Your task to perform on an android device: star an email in the gmail app Image 0: 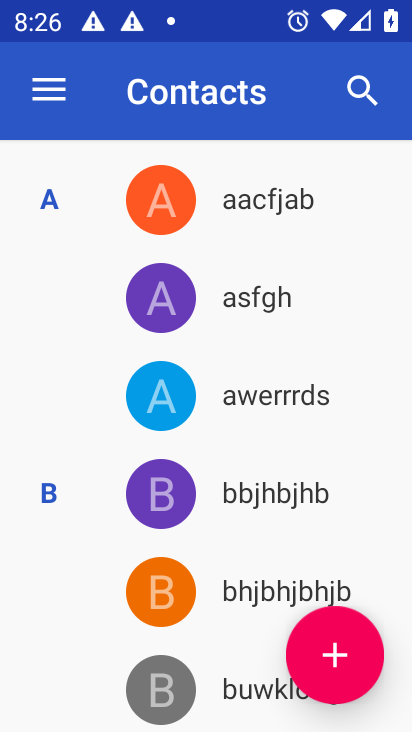
Step 0: press home button
Your task to perform on an android device: star an email in the gmail app Image 1: 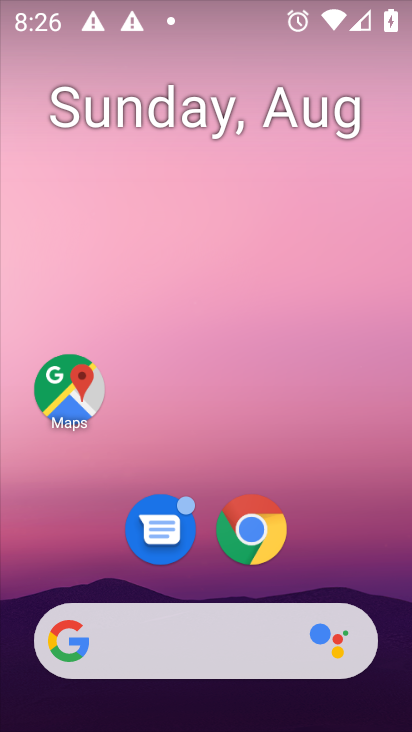
Step 1: drag from (195, 575) to (221, 126)
Your task to perform on an android device: star an email in the gmail app Image 2: 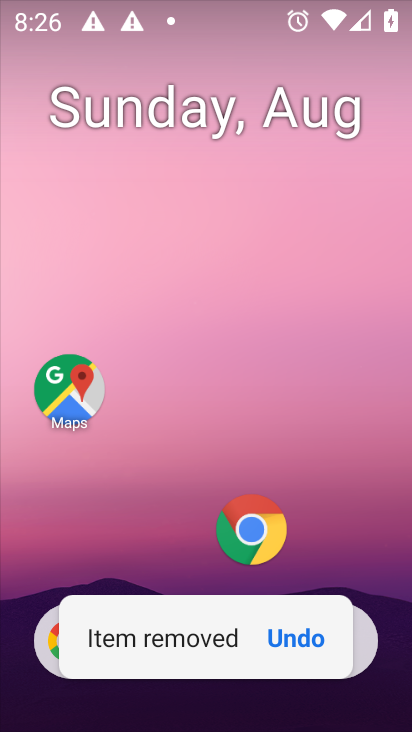
Step 2: drag from (174, 314) to (207, 88)
Your task to perform on an android device: star an email in the gmail app Image 3: 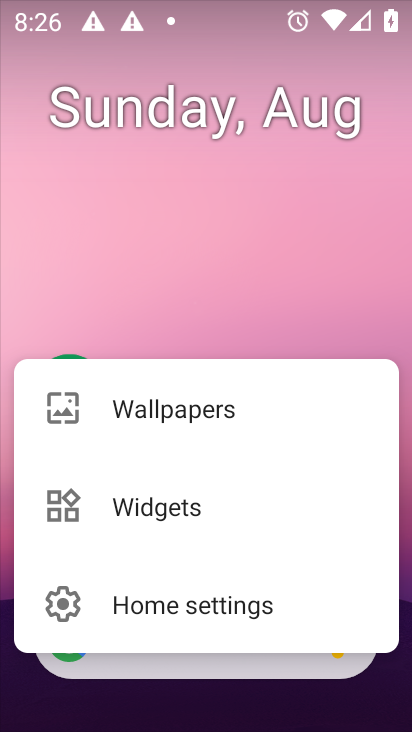
Step 3: click (241, 236)
Your task to perform on an android device: star an email in the gmail app Image 4: 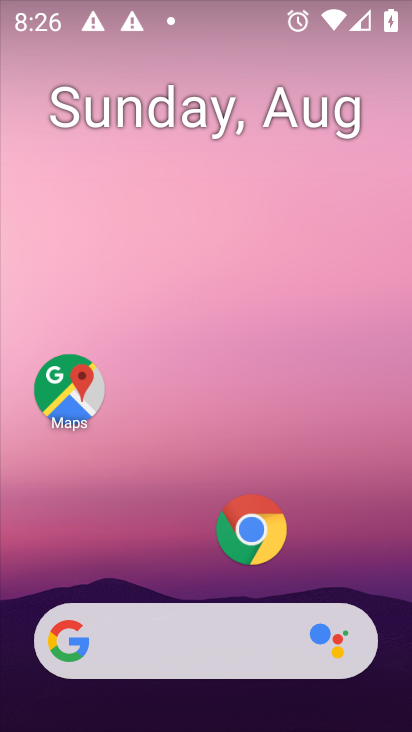
Step 4: drag from (157, 564) to (266, 3)
Your task to perform on an android device: star an email in the gmail app Image 5: 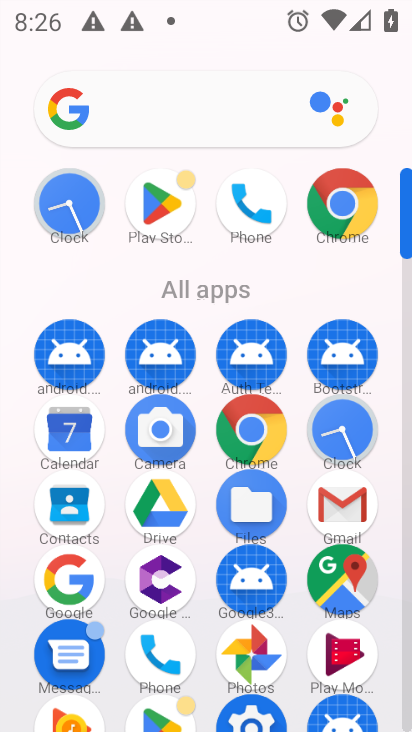
Step 5: click (324, 503)
Your task to perform on an android device: star an email in the gmail app Image 6: 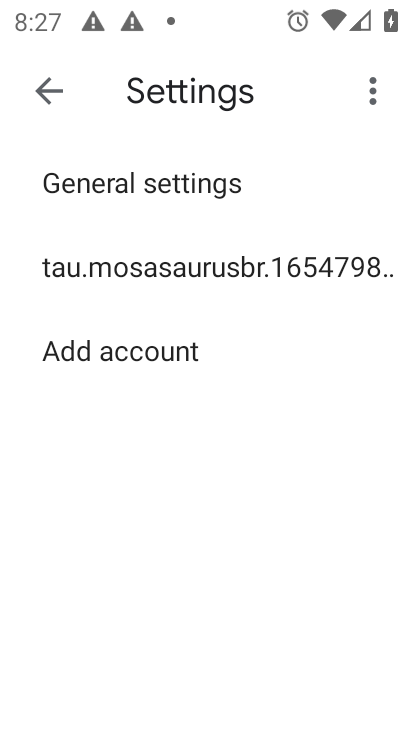
Step 6: click (52, 96)
Your task to perform on an android device: star an email in the gmail app Image 7: 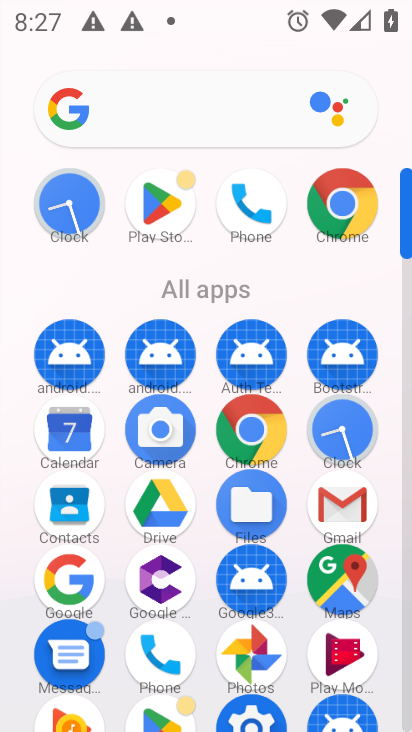
Step 7: click (340, 515)
Your task to perform on an android device: star an email in the gmail app Image 8: 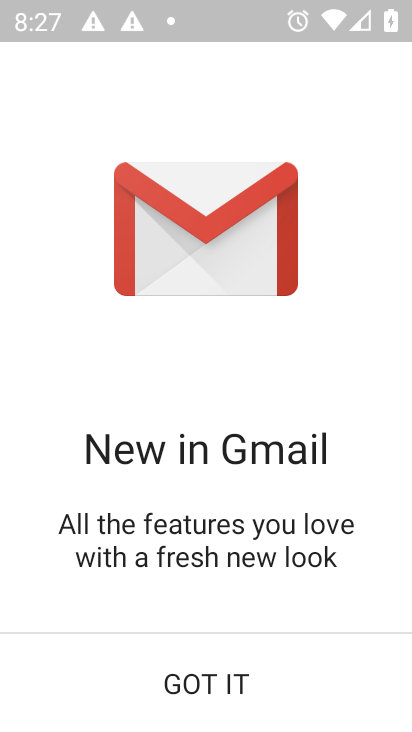
Step 8: click (242, 684)
Your task to perform on an android device: star an email in the gmail app Image 9: 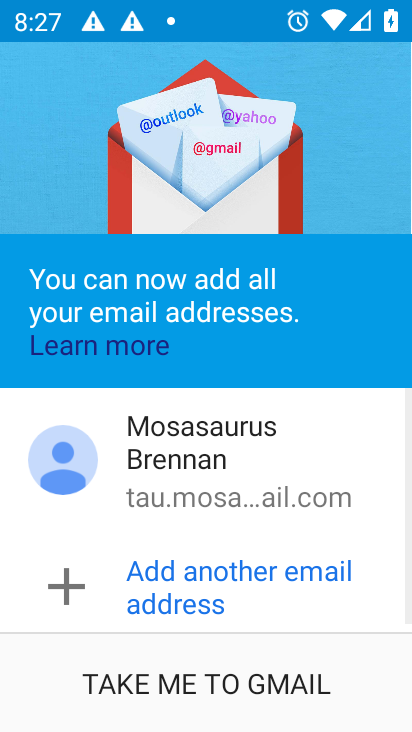
Step 9: click (254, 688)
Your task to perform on an android device: star an email in the gmail app Image 10: 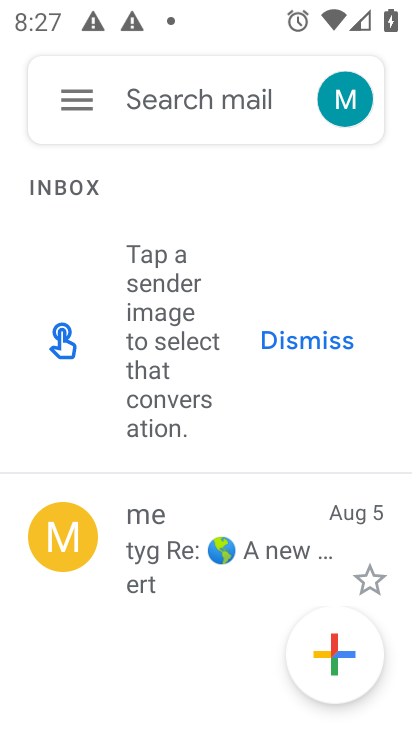
Step 10: click (357, 561)
Your task to perform on an android device: star an email in the gmail app Image 11: 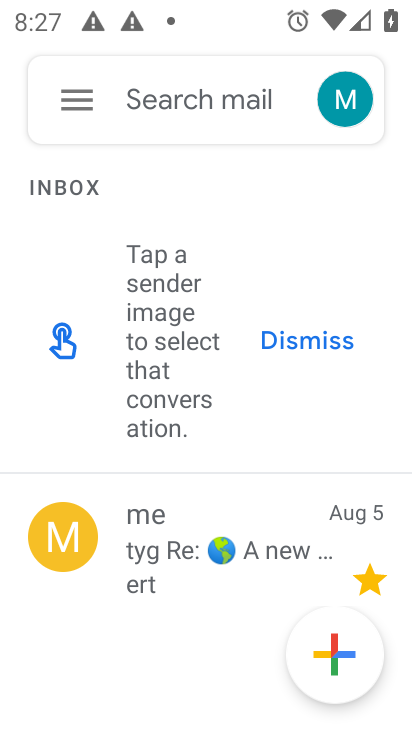
Step 11: task complete